Your task to perform on an android device: turn off location Image 0: 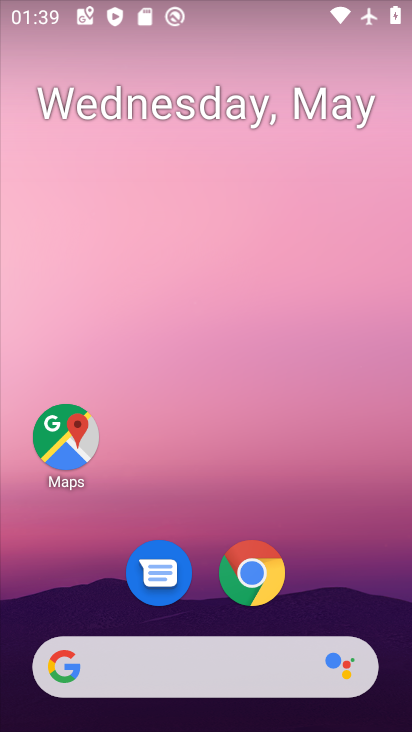
Step 0: drag from (257, 573) to (353, 187)
Your task to perform on an android device: turn off location Image 1: 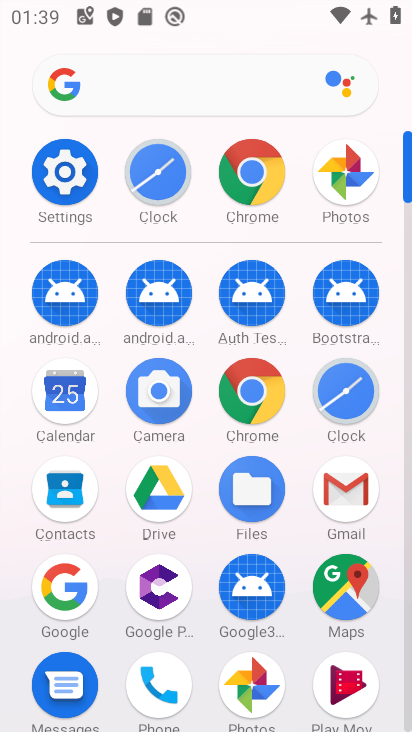
Step 1: click (54, 160)
Your task to perform on an android device: turn off location Image 2: 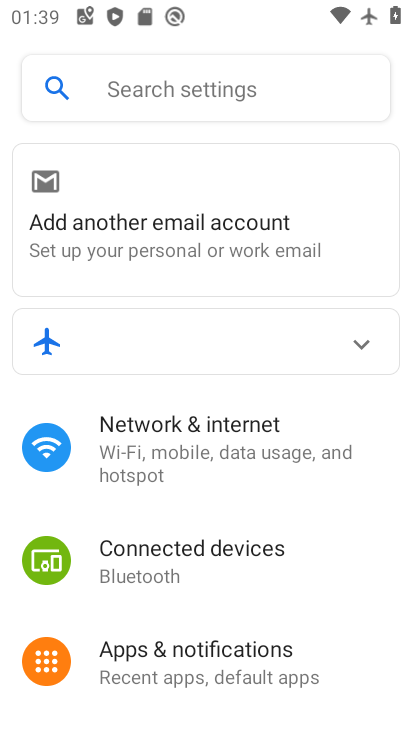
Step 2: drag from (197, 587) to (227, 230)
Your task to perform on an android device: turn off location Image 3: 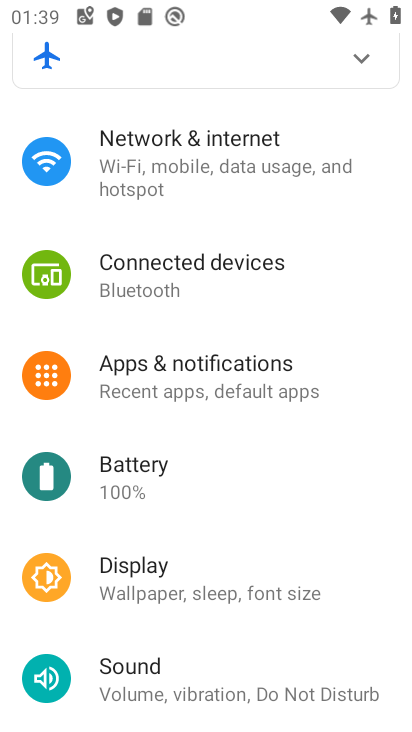
Step 3: drag from (227, 621) to (199, 152)
Your task to perform on an android device: turn off location Image 4: 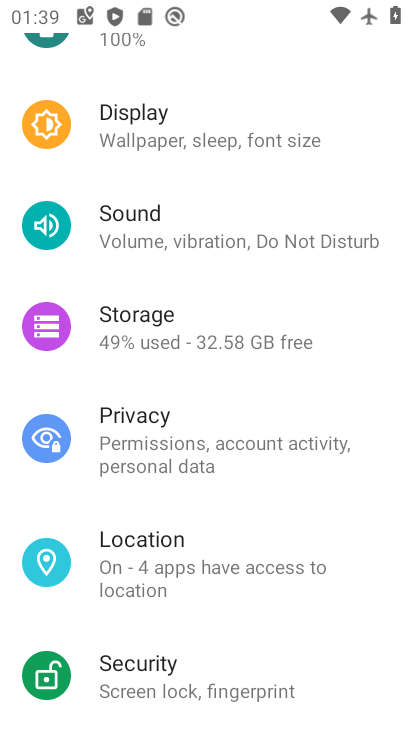
Step 4: click (176, 536)
Your task to perform on an android device: turn off location Image 5: 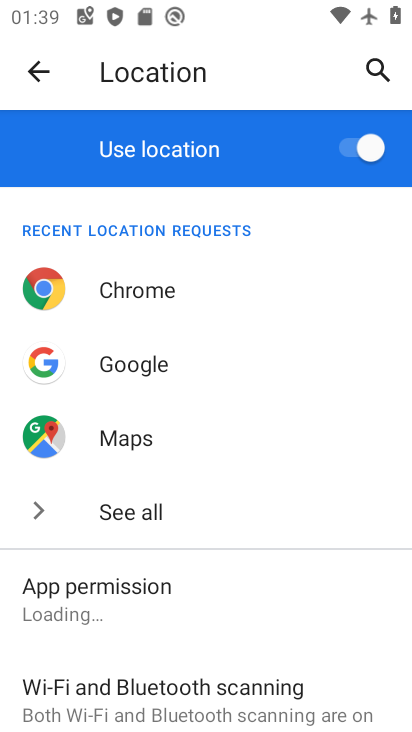
Step 5: click (369, 135)
Your task to perform on an android device: turn off location Image 6: 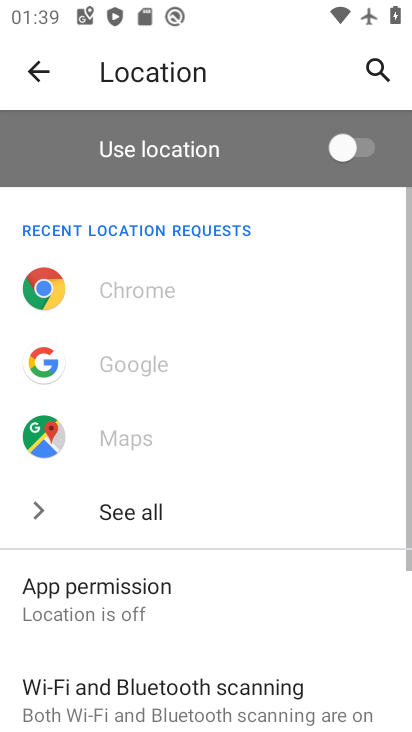
Step 6: task complete